Your task to perform on an android device: Open wifi settings Image 0: 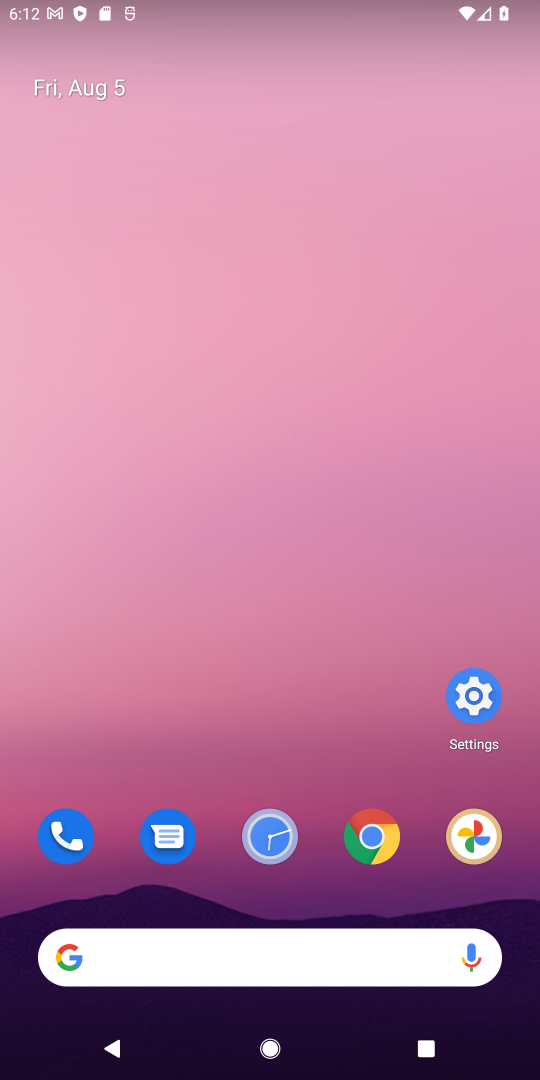
Step 0: drag from (371, 935) to (255, 290)
Your task to perform on an android device: Open wifi settings Image 1: 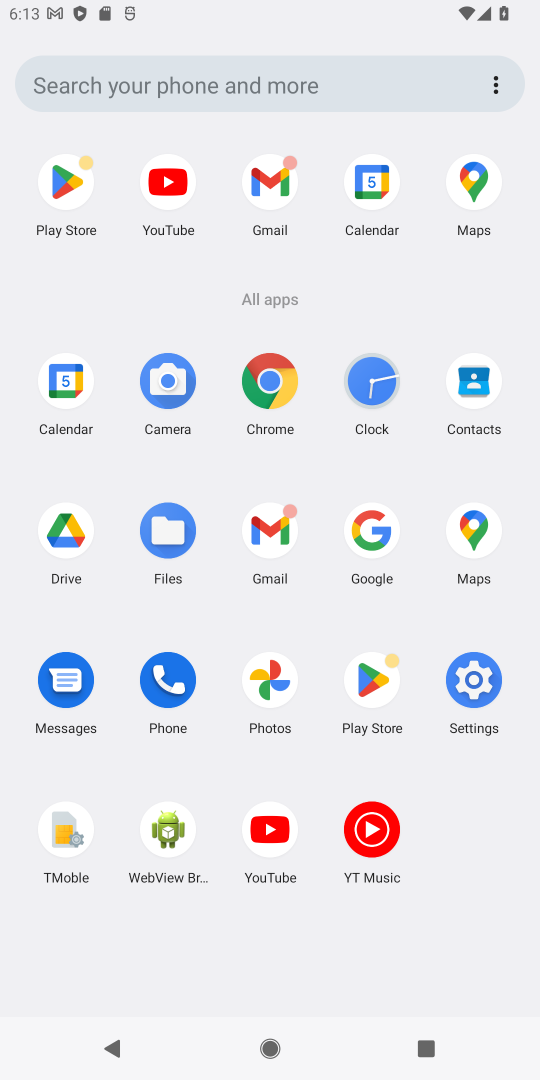
Step 1: click (467, 688)
Your task to perform on an android device: Open wifi settings Image 2: 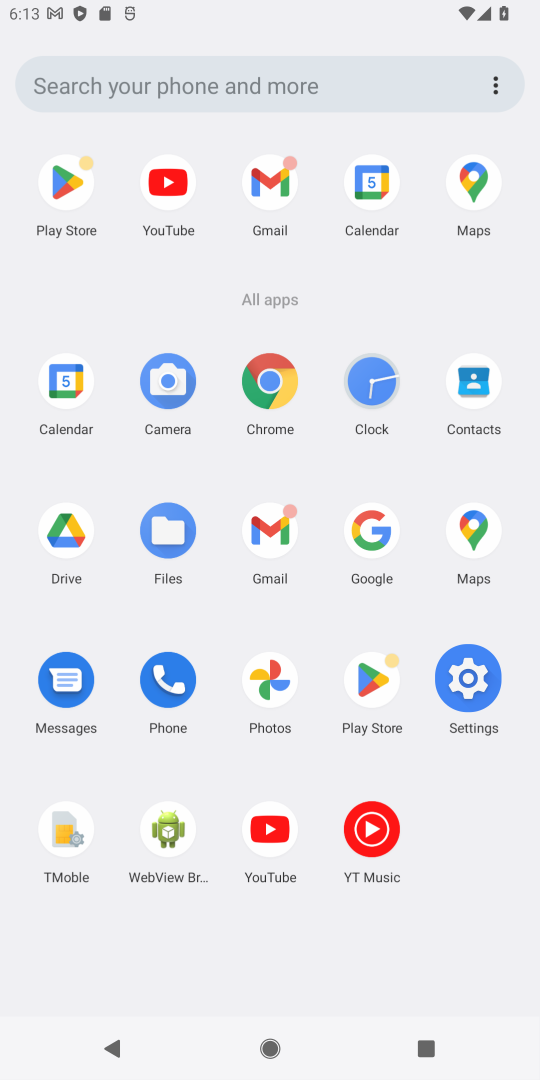
Step 2: click (465, 687)
Your task to perform on an android device: Open wifi settings Image 3: 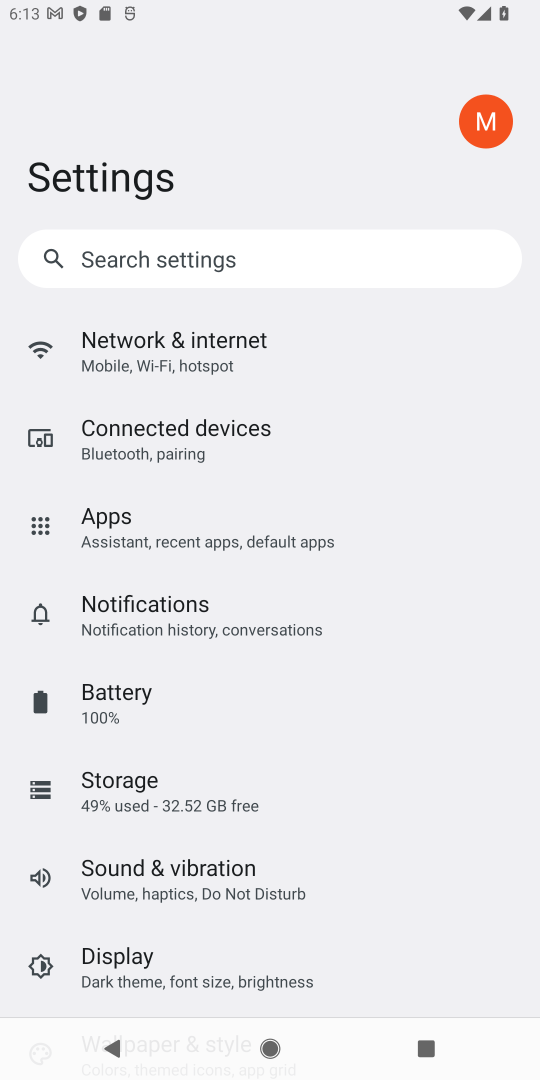
Step 3: click (484, 685)
Your task to perform on an android device: Open wifi settings Image 4: 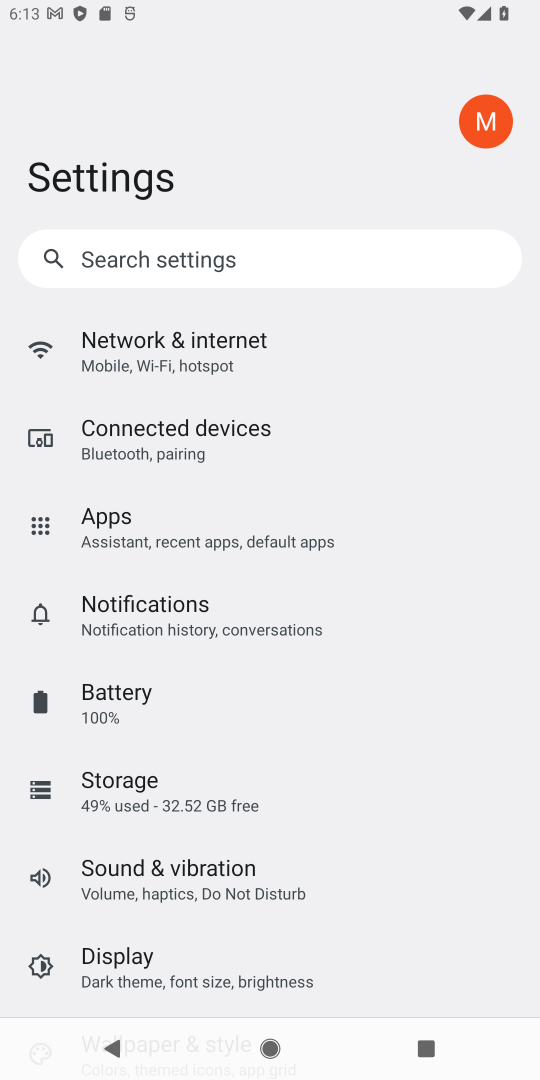
Step 4: click (146, 357)
Your task to perform on an android device: Open wifi settings Image 5: 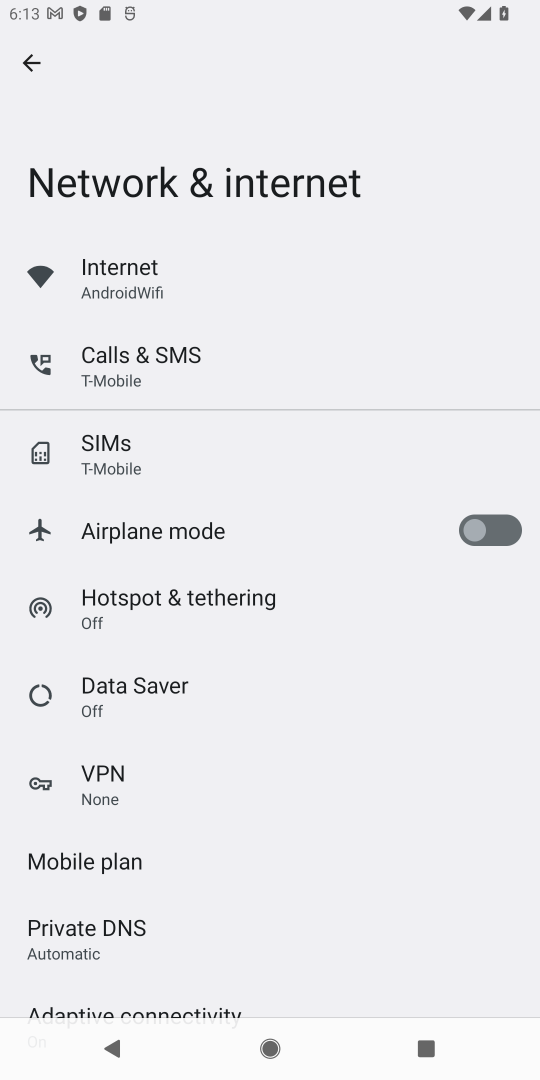
Step 5: drag from (125, 357) to (217, 413)
Your task to perform on an android device: Open wifi settings Image 6: 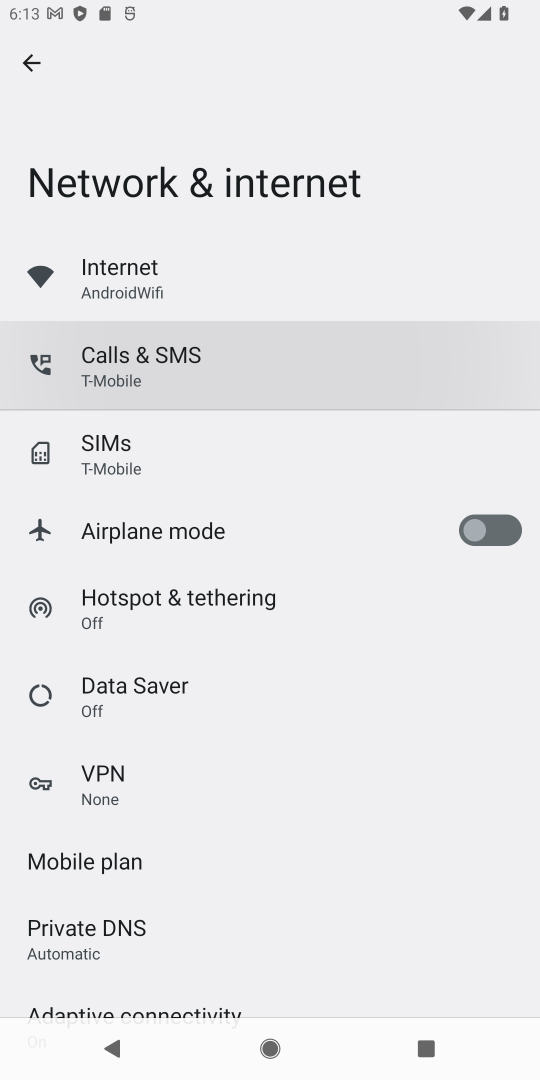
Step 6: click (188, 352)
Your task to perform on an android device: Open wifi settings Image 7: 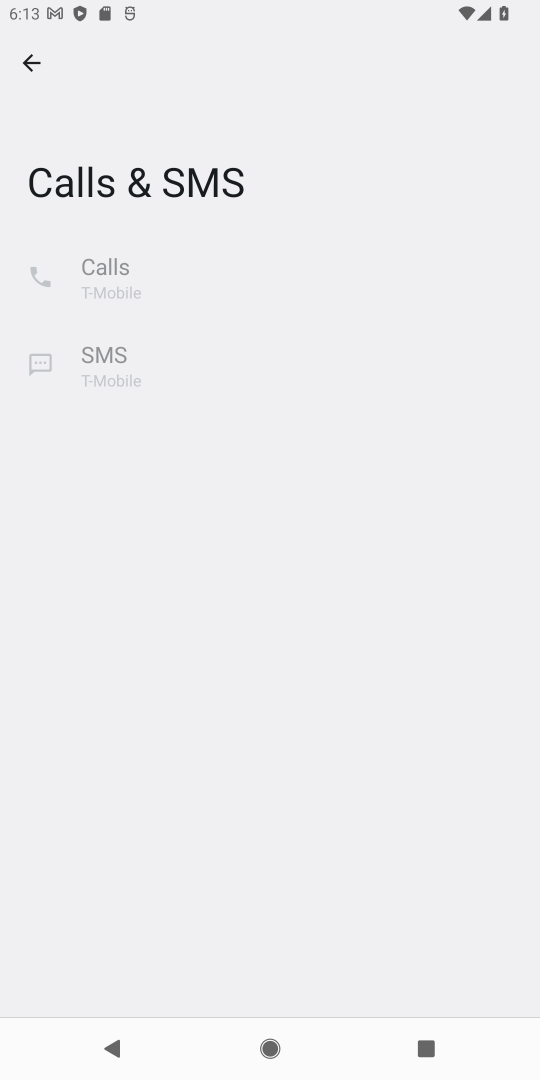
Step 7: click (133, 292)
Your task to perform on an android device: Open wifi settings Image 8: 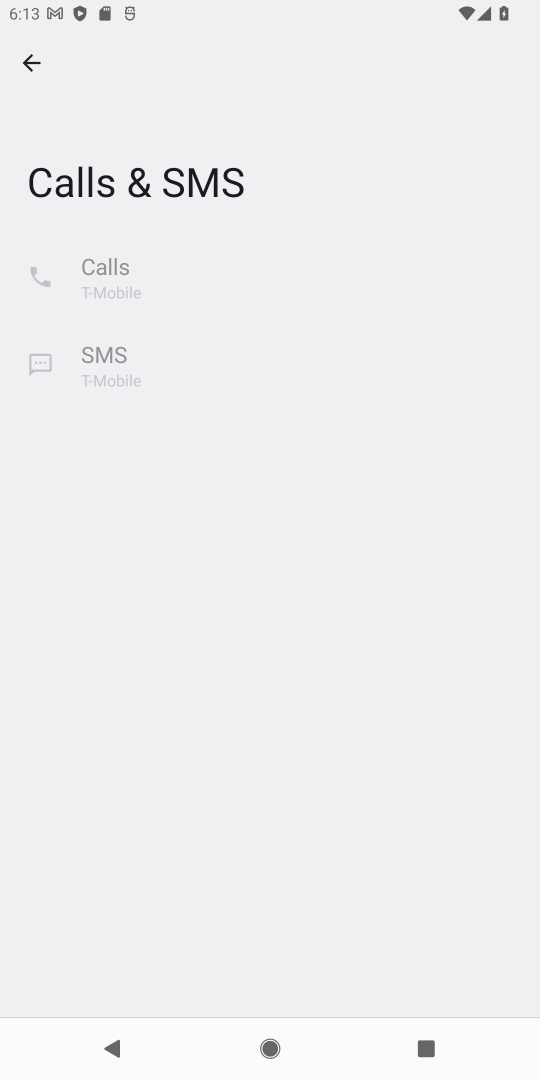
Step 8: click (133, 292)
Your task to perform on an android device: Open wifi settings Image 9: 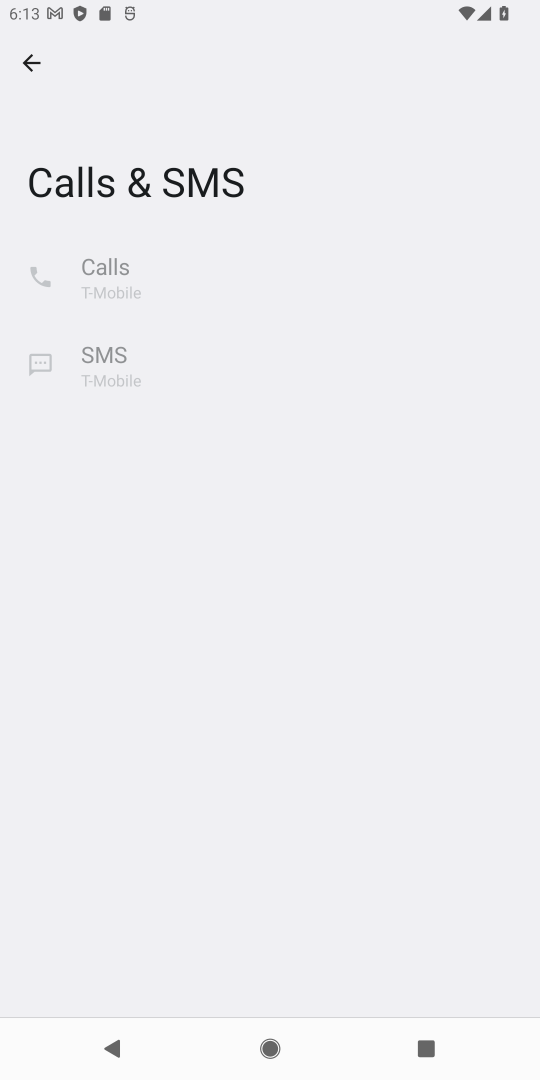
Step 9: click (135, 296)
Your task to perform on an android device: Open wifi settings Image 10: 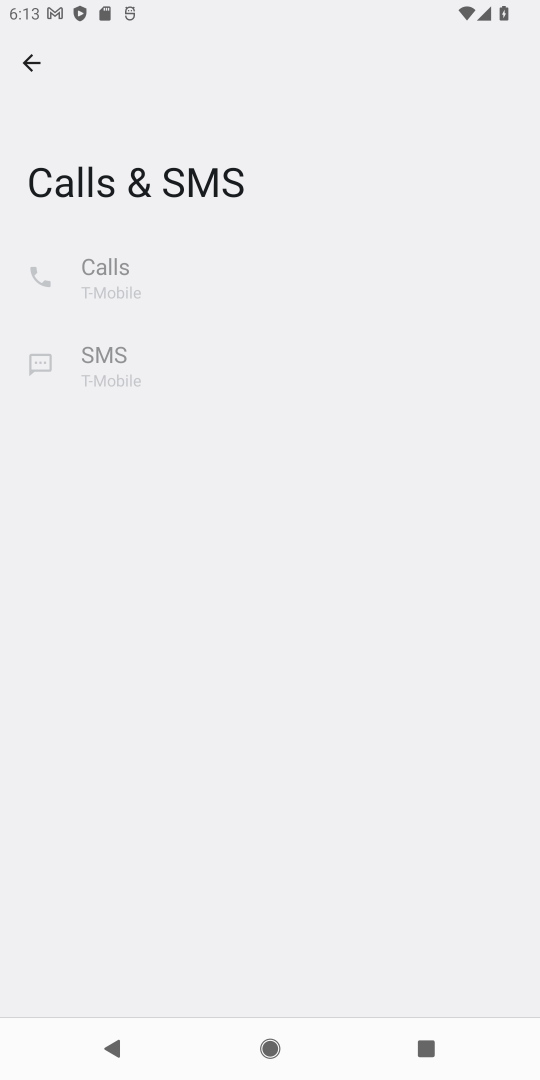
Step 10: click (30, 74)
Your task to perform on an android device: Open wifi settings Image 11: 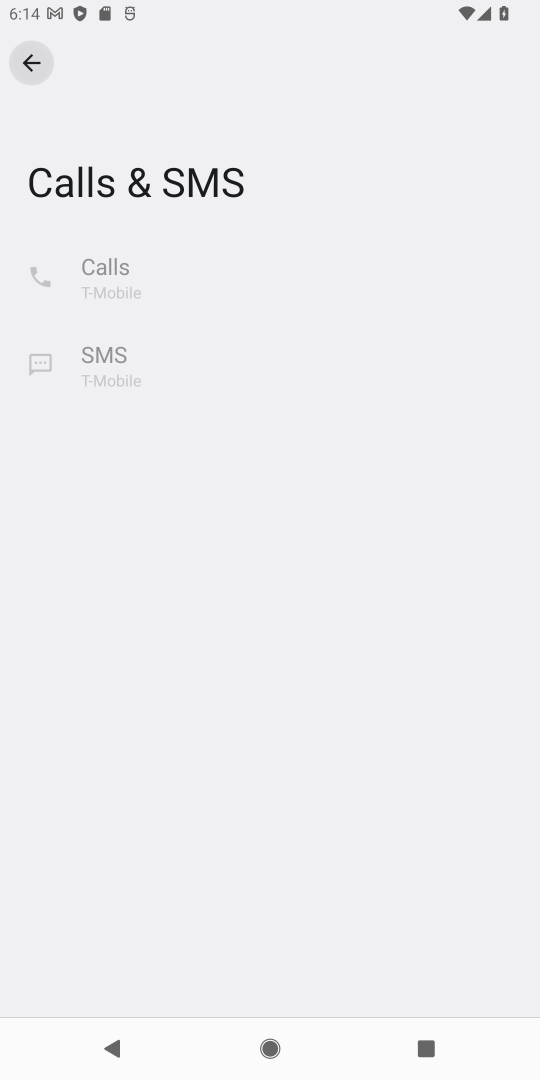
Step 11: click (32, 74)
Your task to perform on an android device: Open wifi settings Image 12: 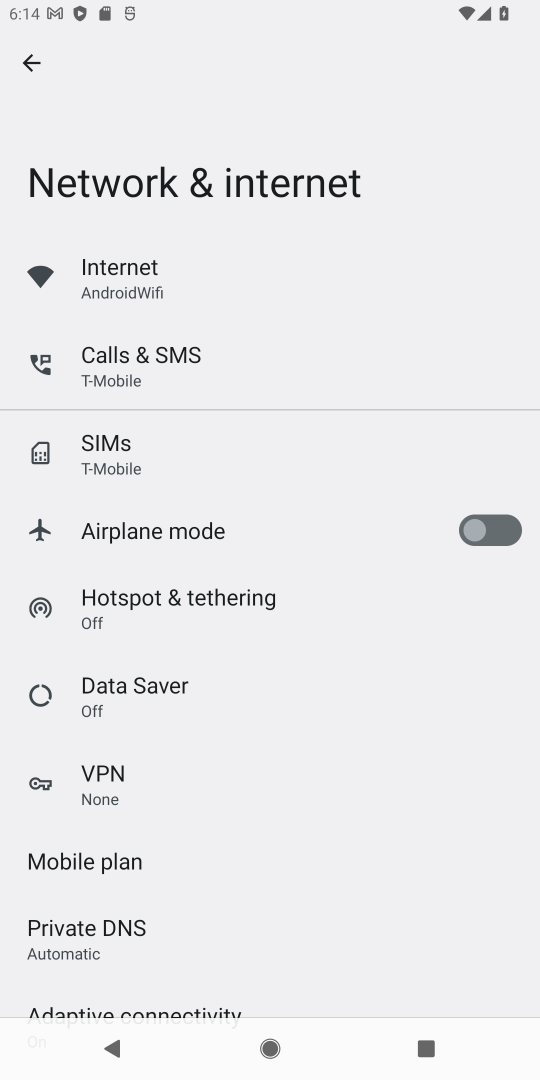
Step 12: click (133, 281)
Your task to perform on an android device: Open wifi settings Image 13: 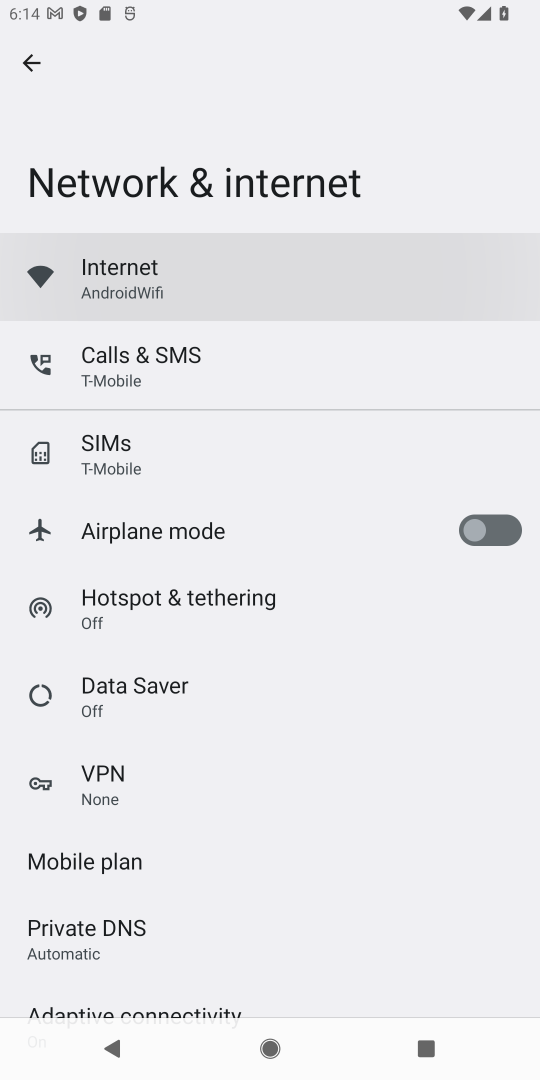
Step 13: click (132, 283)
Your task to perform on an android device: Open wifi settings Image 14: 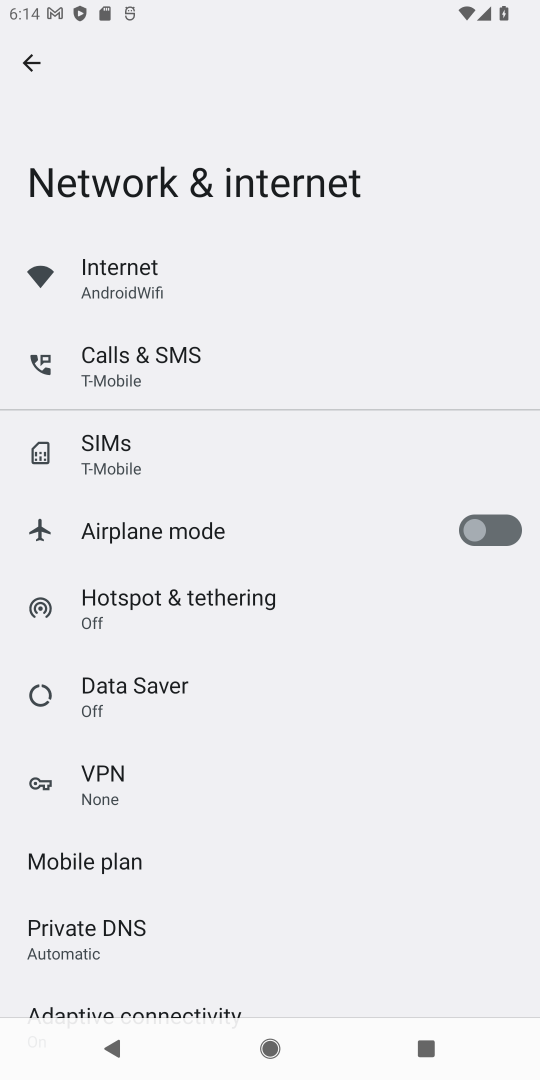
Step 14: click (138, 283)
Your task to perform on an android device: Open wifi settings Image 15: 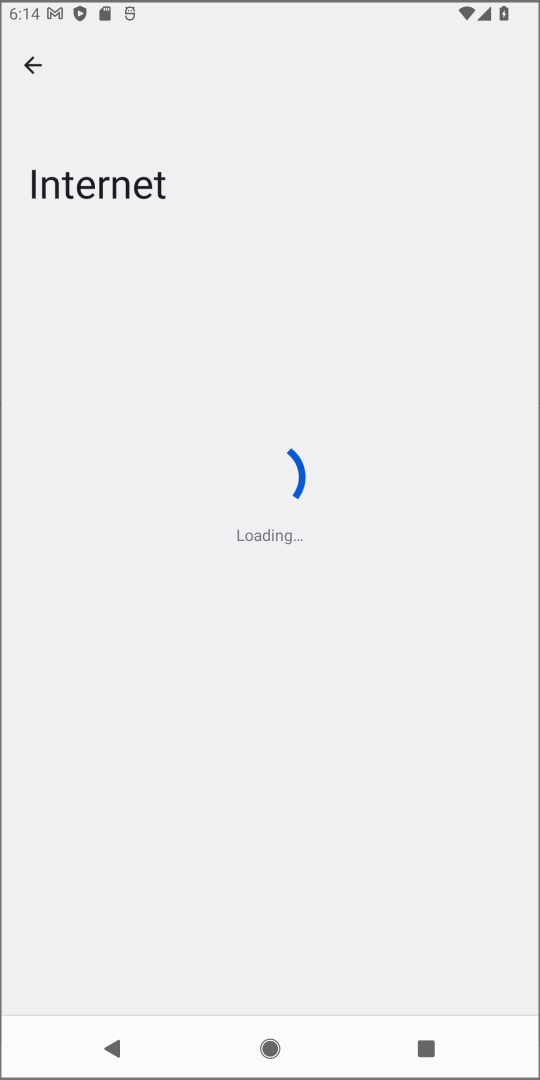
Step 15: click (128, 272)
Your task to perform on an android device: Open wifi settings Image 16: 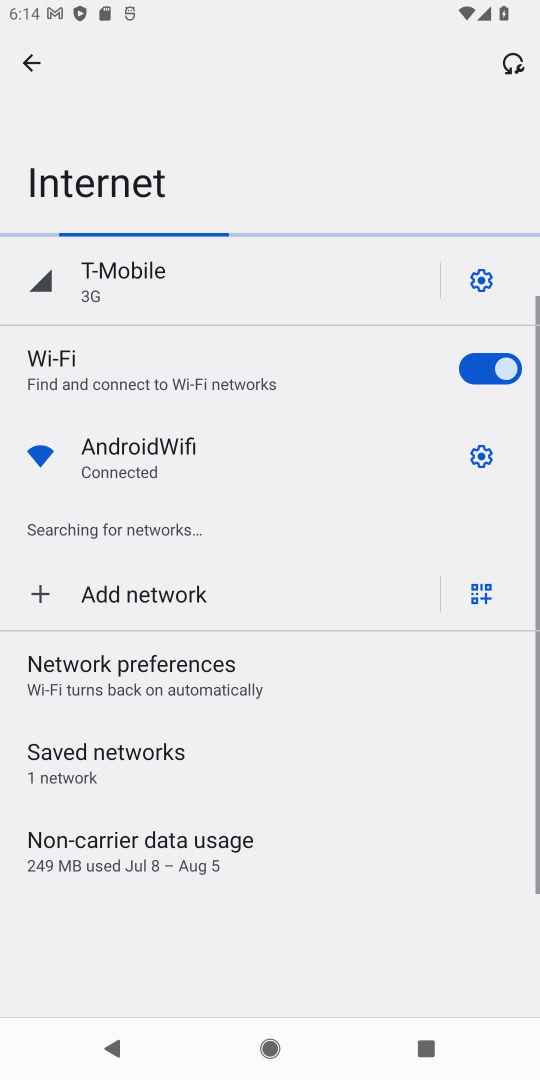
Step 16: click (127, 279)
Your task to perform on an android device: Open wifi settings Image 17: 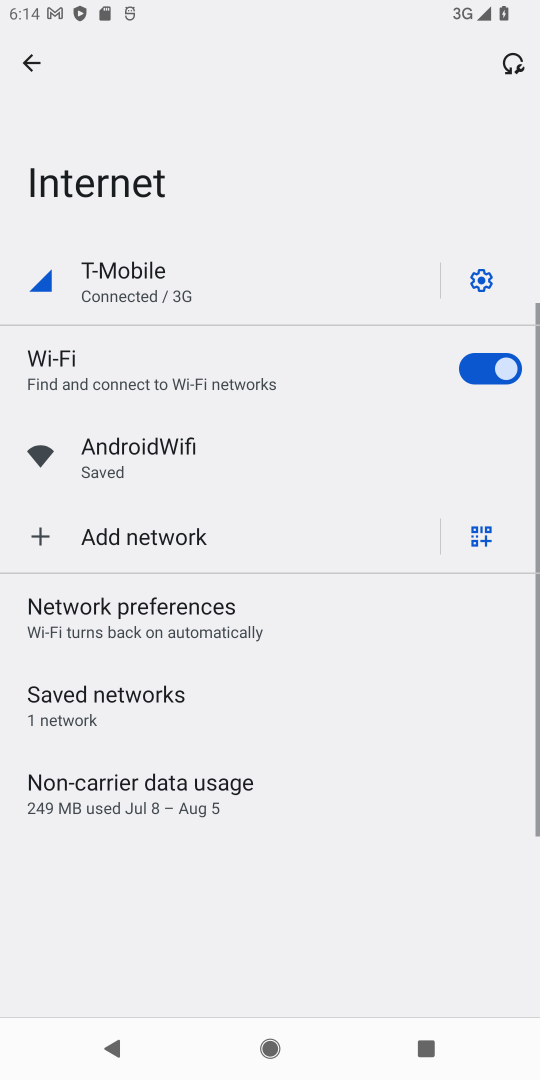
Step 17: task complete